Your task to perform on an android device: Open Youtube and go to "Your channel" Image 0: 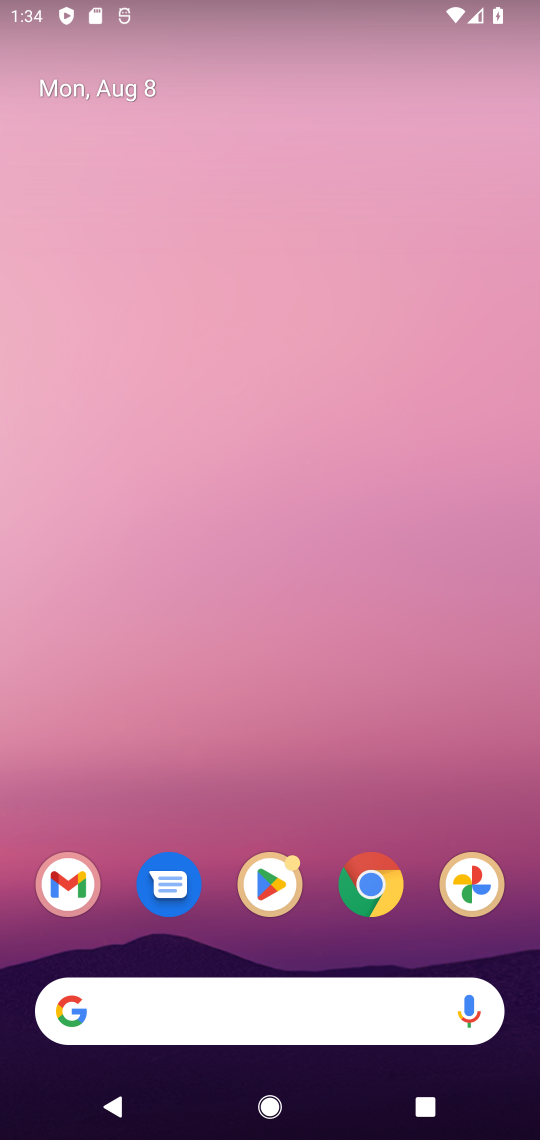
Step 0: drag from (485, 767) to (306, 38)
Your task to perform on an android device: Open Youtube and go to "Your channel" Image 1: 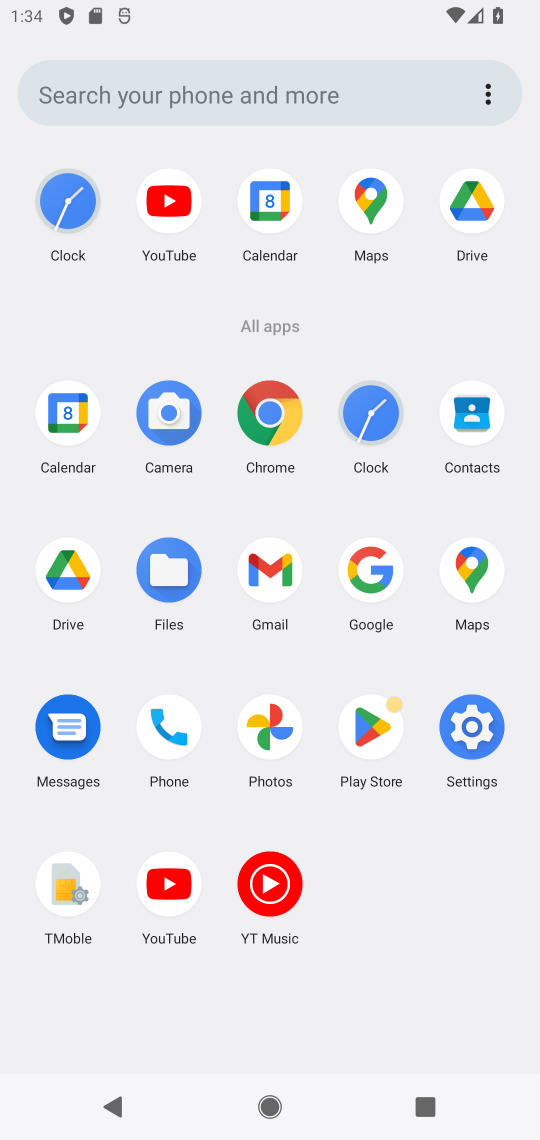
Step 1: click (173, 885)
Your task to perform on an android device: Open Youtube and go to "Your channel" Image 2: 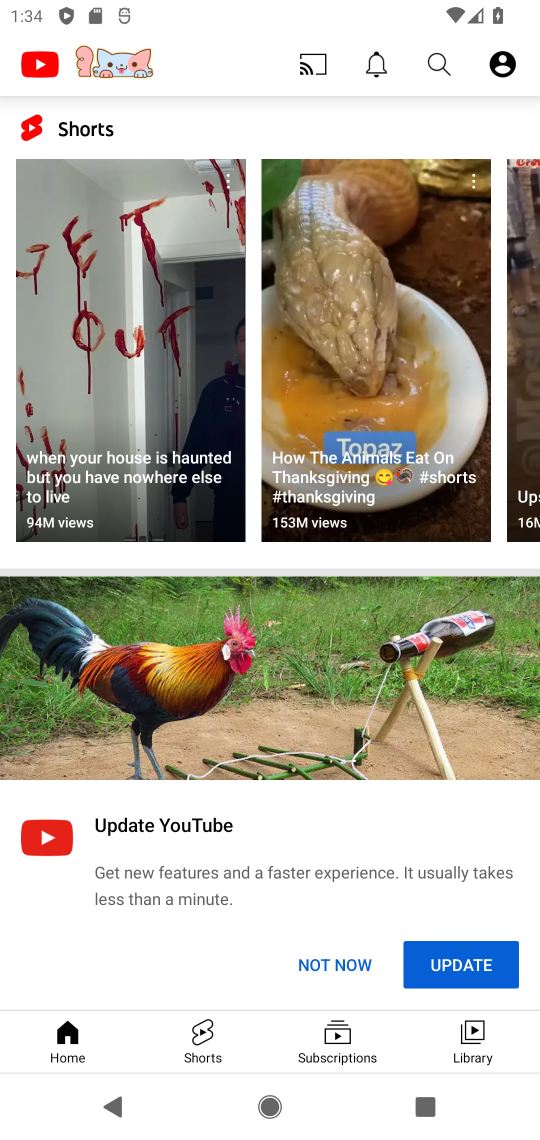
Step 2: click (499, 66)
Your task to perform on an android device: Open Youtube and go to "Your channel" Image 3: 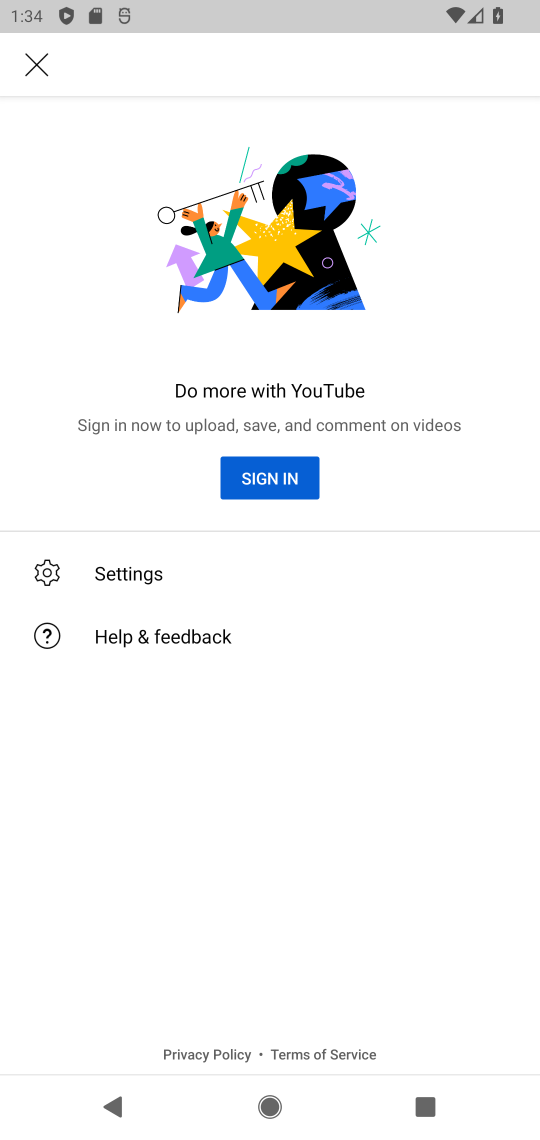
Step 3: task complete